Your task to perform on an android device: set an alarm Image 0: 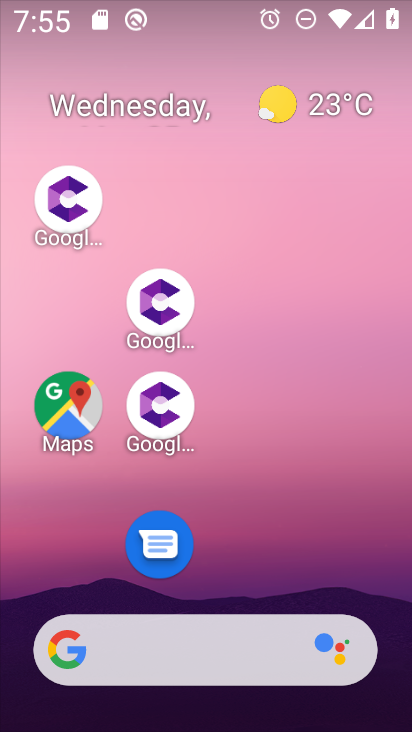
Step 0: drag from (253, 530) to (199, 54)
Your task to perform on an android device: set an alarm Image 1: 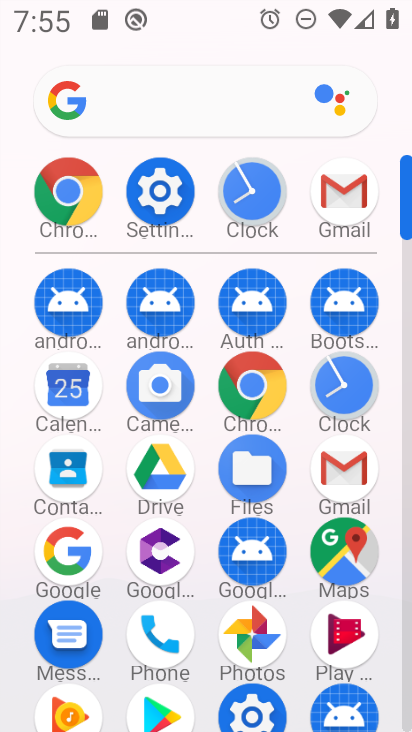
Step 1: click (252, 189)
Your task to perform on an android device: set an alarm Image 2: 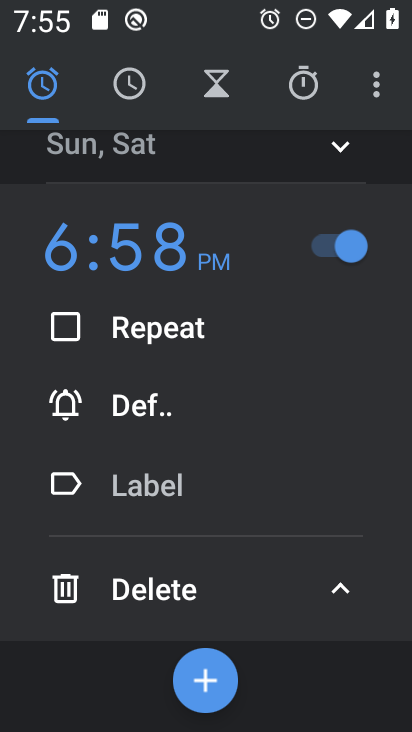
Step 2: click (198, 684)
Your task to perform on an android device: set an alarm Image 3: 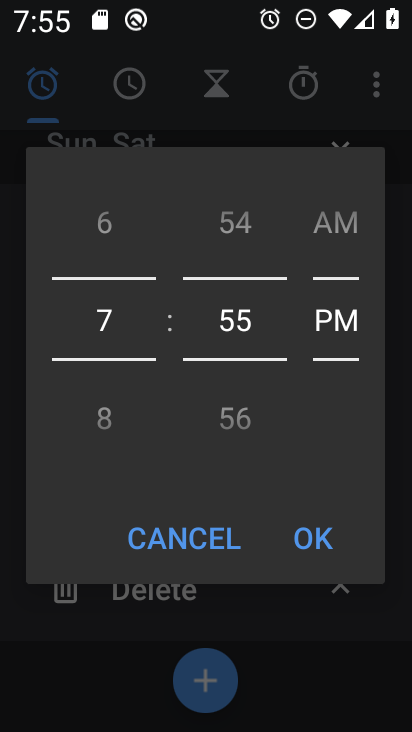
Step 3: click (314, 539)
Your task to perform on an android device: set an alarm Image 4: 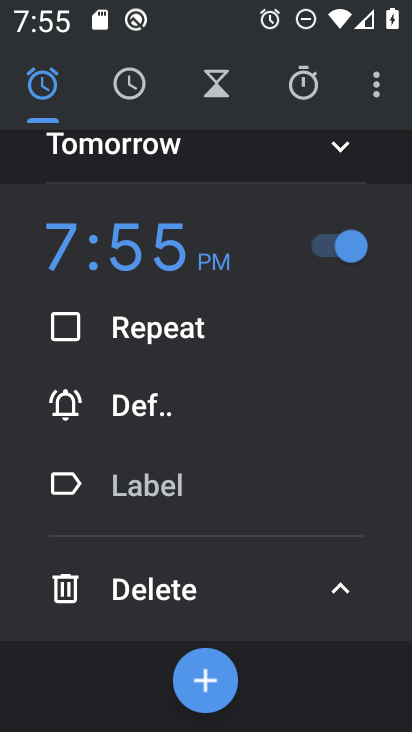
Step 4: task complete